Your task to perform on an android device: Open settings Image 0: 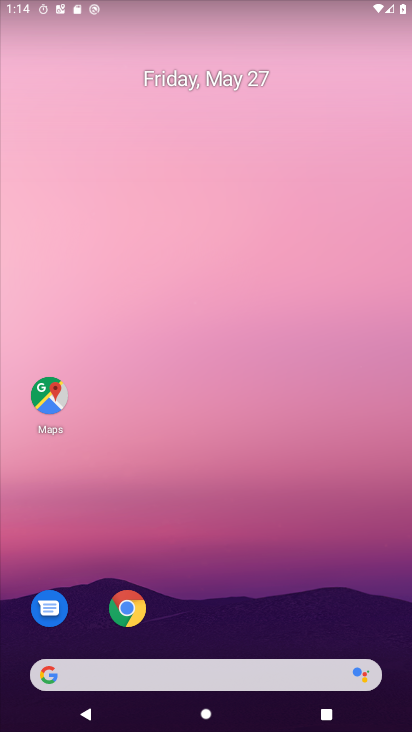
Step 0: click (340, 530)
Your task to perform on an android device: Open settings Image 1: 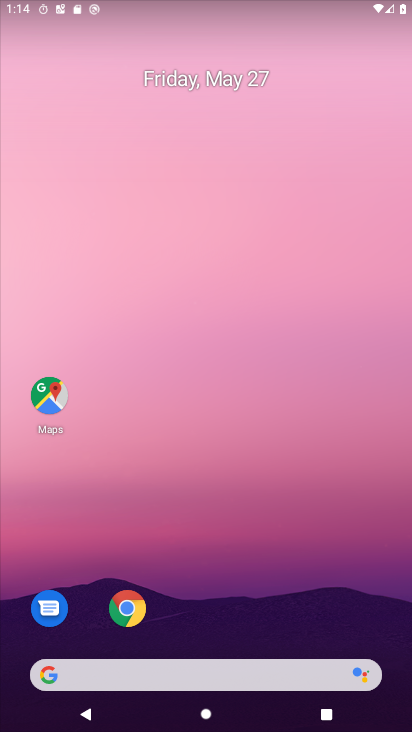
Step 1: drag from (387, 677) to (341, 202)
Your task to perform on an android device: Open settings Image 2: 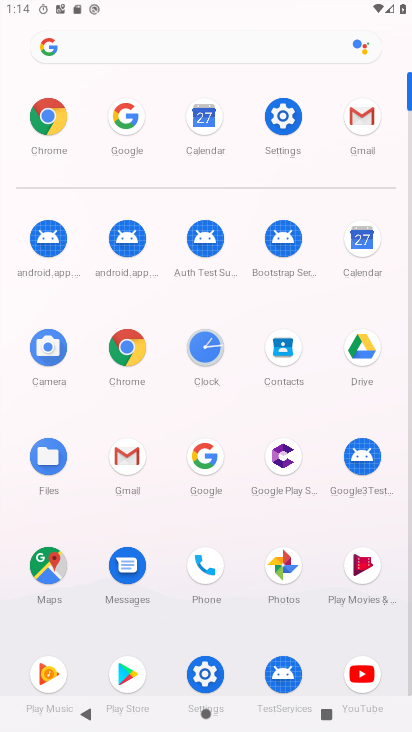
Step 2: click (269, 113)
Your task to perform on an android device: Open settings Image 3: 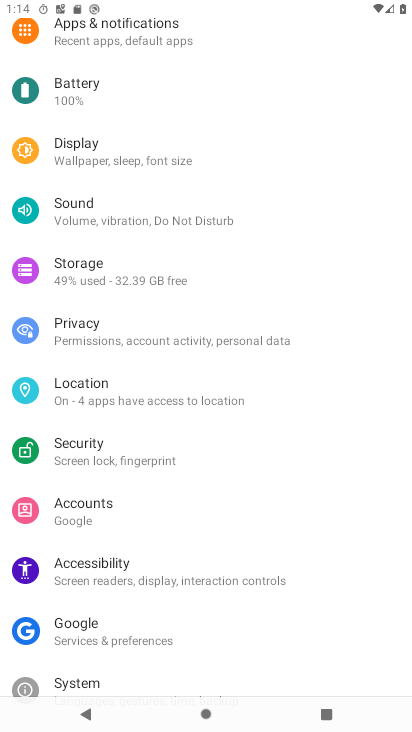
Step 3: task complete